Your task to perform on an android device: Open calendar and show me the second week of next month Image 0: 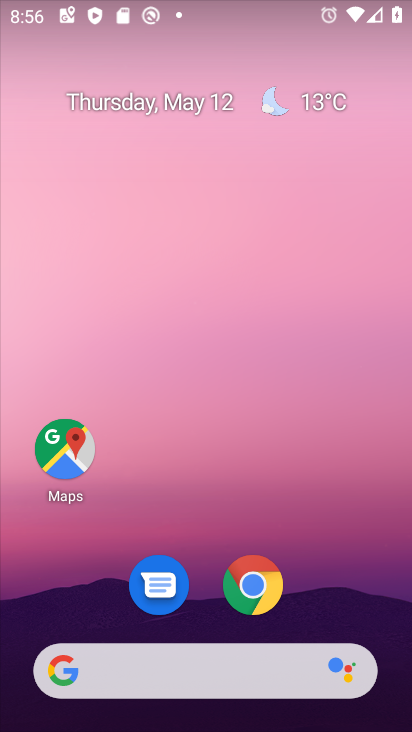
Step 0: drag from (203, 497) to (253, 78)
Your task to perform on an android device: Open calendar and show me the second week of next month Image 1: 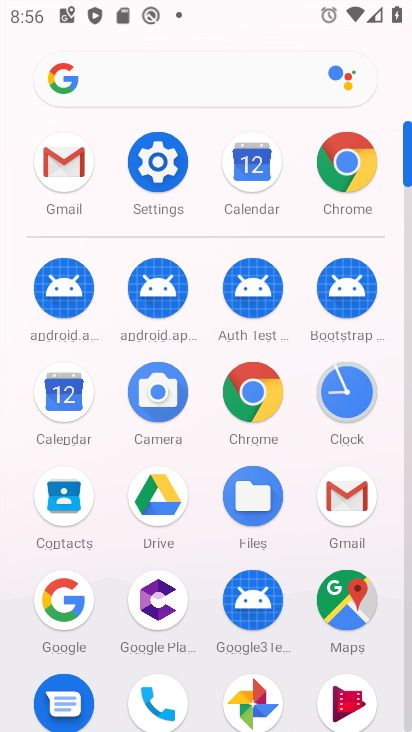
Step 1: click (255, 158)
Your task to perform on an android device: Open calendar and show me the second week of next month Image 2: 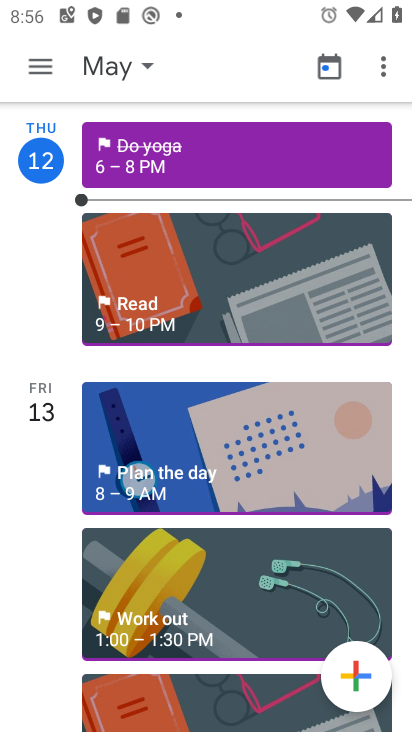
Step 2: click (34, 59)
Your task to perform on an android device: Open calendar and show me the second week of next month Image 3: 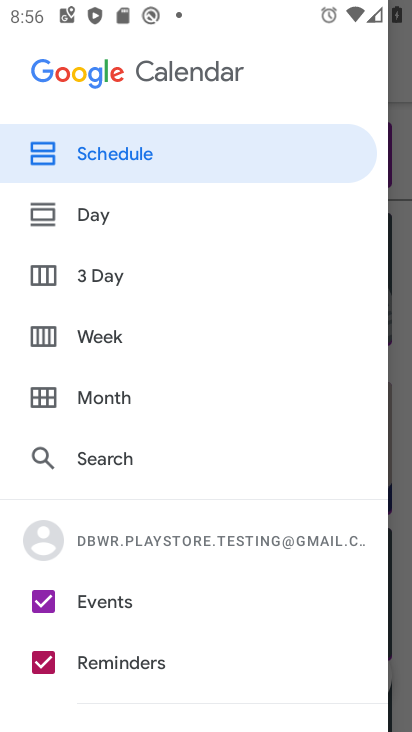
Step 3: click (80, 390)
Your task to perform on an android device: Open calendar and show me the second week of next month Image 4: 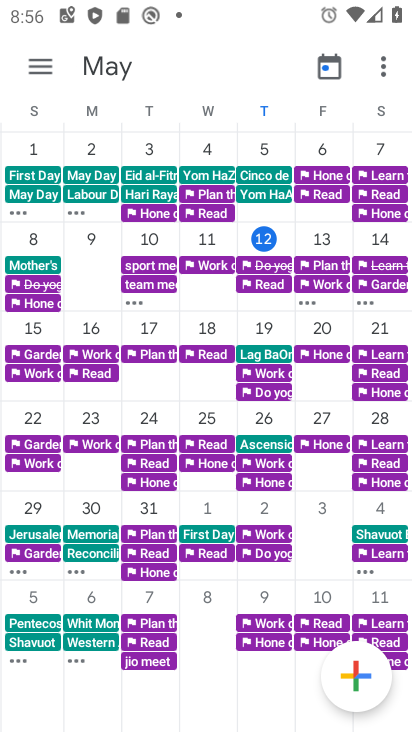
Step 4: drag from (370, 336) to (0, 278)
Your task to perform on an android device: Open calendar and show me the second week of next month Image 5: 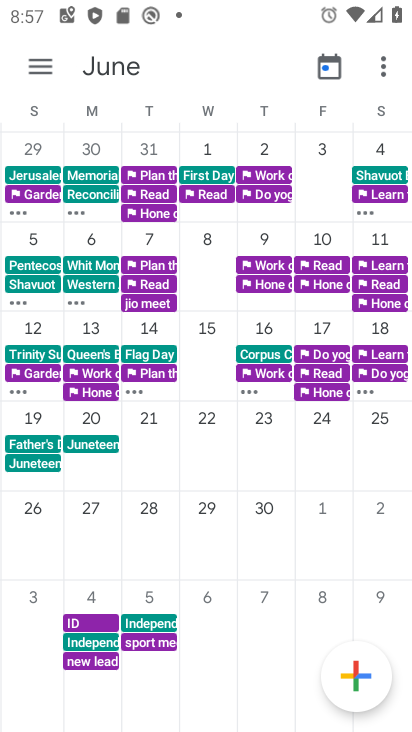
Step 5: click (41, 325)
Your task to perform on an android device: Open calendar and show me the second week of next month Image 6: 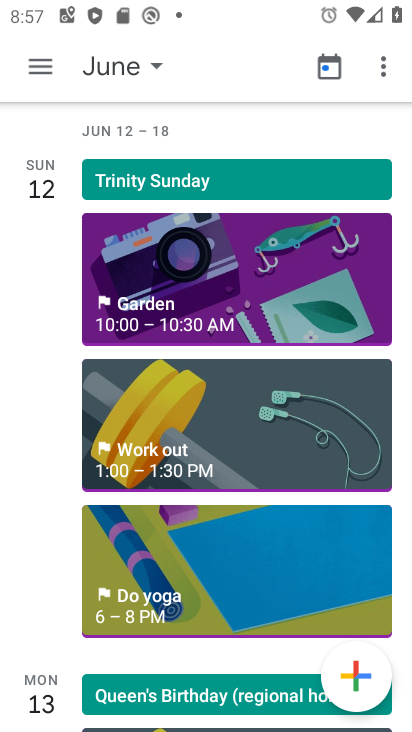
Step 6: click (39, 68)
Your task to perform on an android device: Open calendar and show me the second week of next month Image 7: 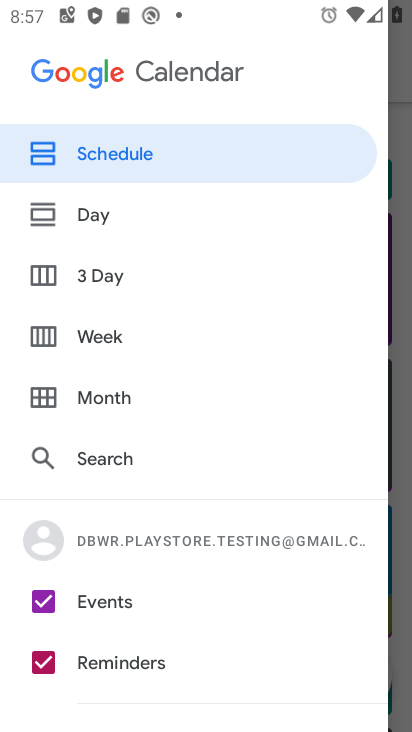
Step 7: click (62, 324)
Your task to perform on an android device: Open calendar and show me the second week of next month Image 8: 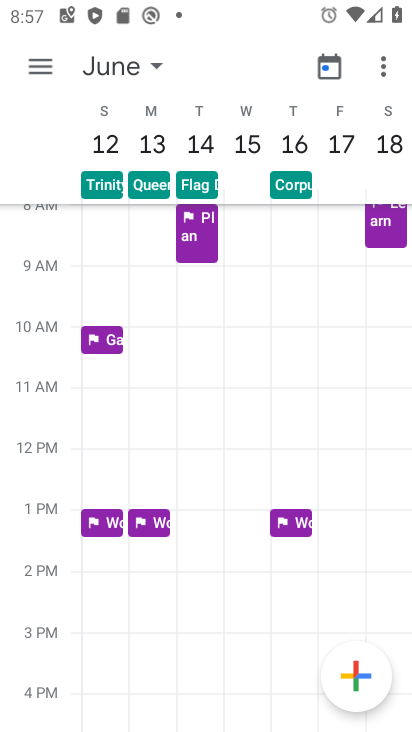
Step 8: task complete